Your task to perform on an android device: What is the recent news? Image 0: 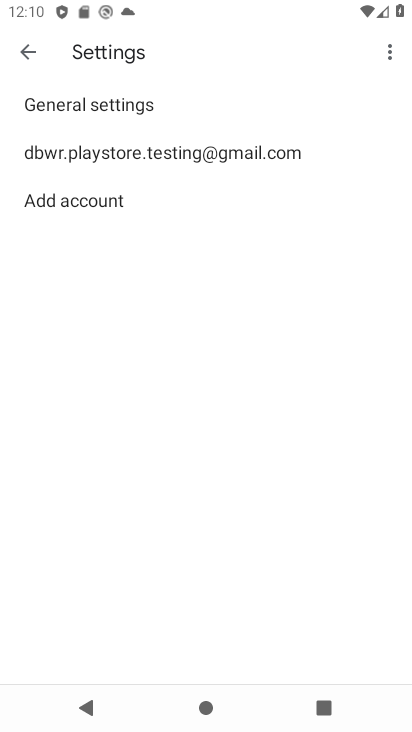
Step 0: press home button
Your task to perform on an android device: What is the recent news? Image 1: 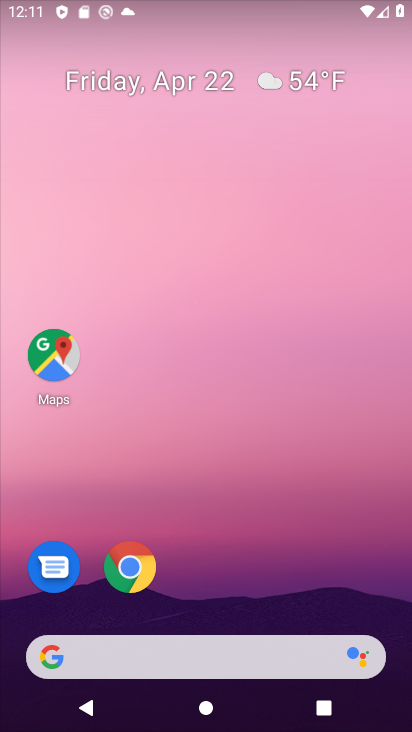
Step 1: drag from (216, 545) to (283, 82)
Your task to perform on an android device: What is the recent news? Image 2: 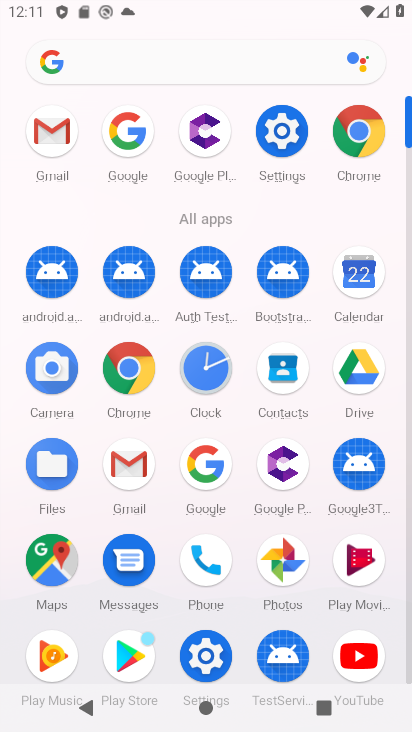
Step 2: drag from (171, 558) to (219, 256)
Your task to perform on an android device: What is the recent news? Image 3: 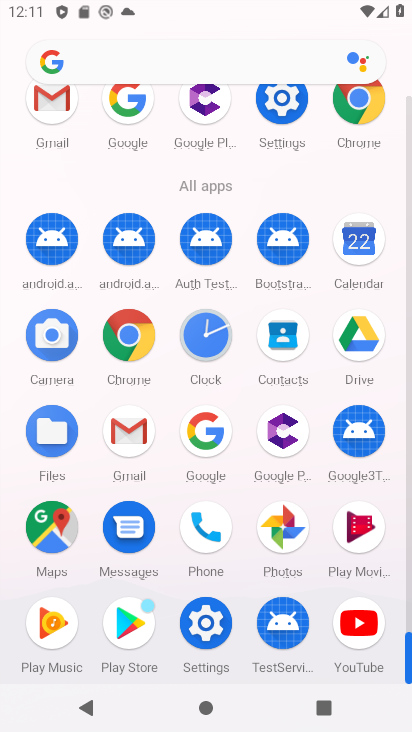
Step 3: click (220, 446)
Your task to perform on an android device: What is the recent news? Image 4: 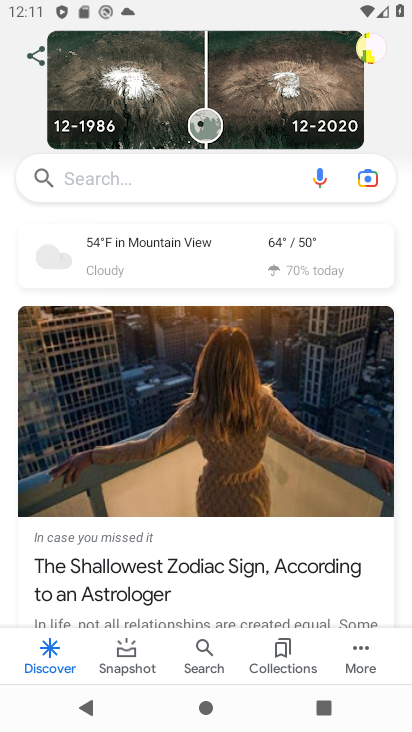
Step 4: drag from (255, 456) to (255, 504)
Your task to perform on an android device: What is the recent news? Image 5: 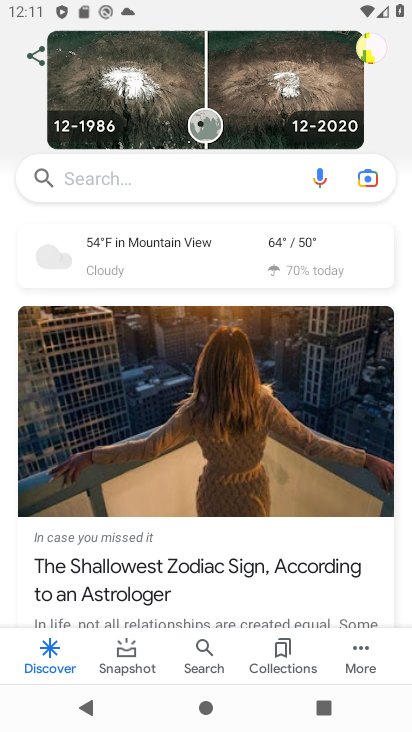
Step 5: click (225, 175)
Your task to perform on an android device: What is the recent news? Image 6: 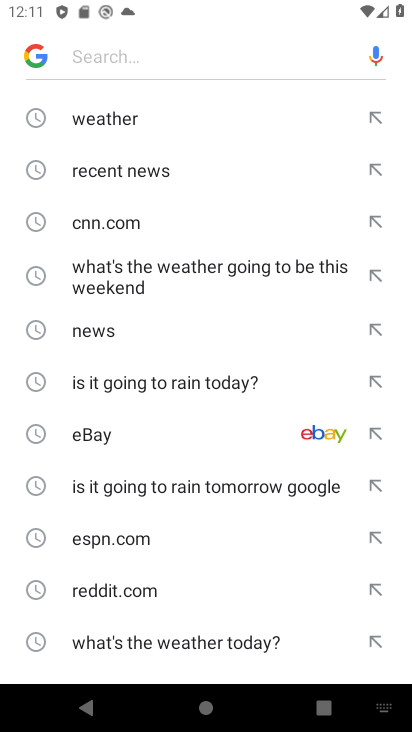
Step 6: click (225, 164)
Your task to perform on an android device: What is the recent news? Image 7: 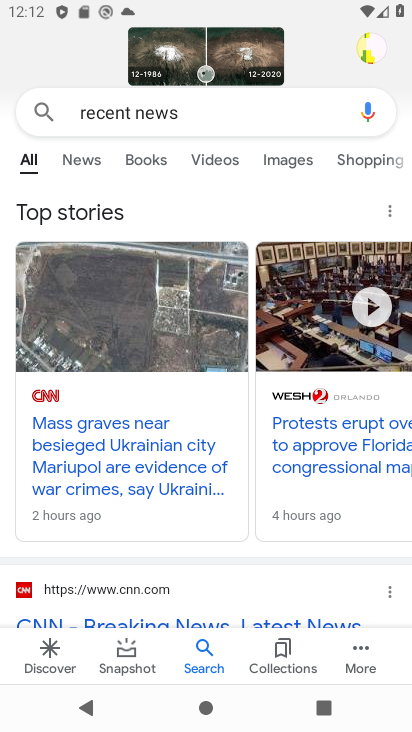
Step 7: click (80, 159)
Your task to perform on an android device: What is the recent news? Image 8: 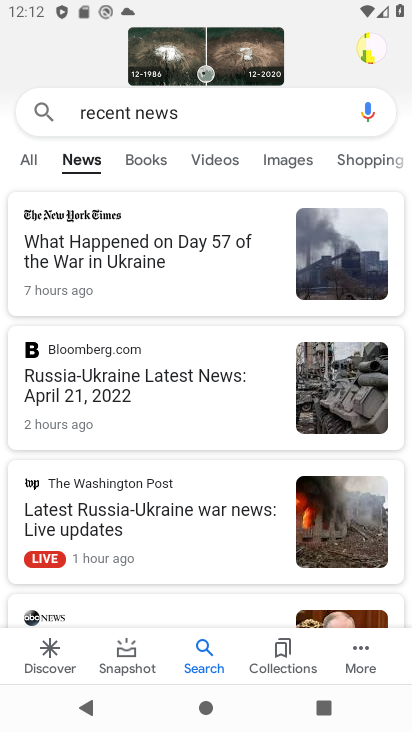
Step 8: task complete